Your task to perform on an android device: Open the web browser Image 0: 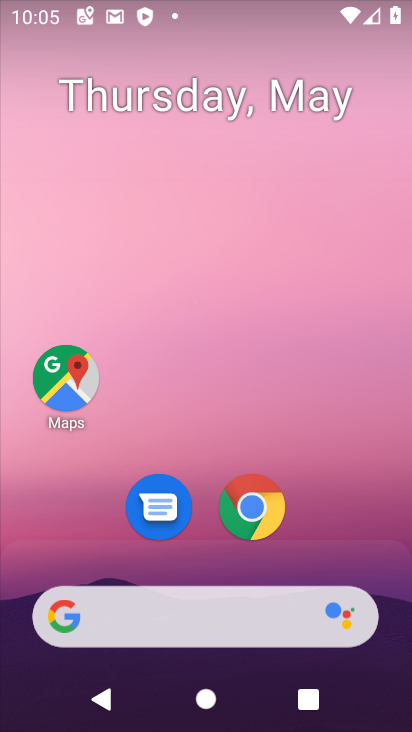
Step 0: click (270, 511)
Your task to perform on an android device: Open the web browser Image 1: 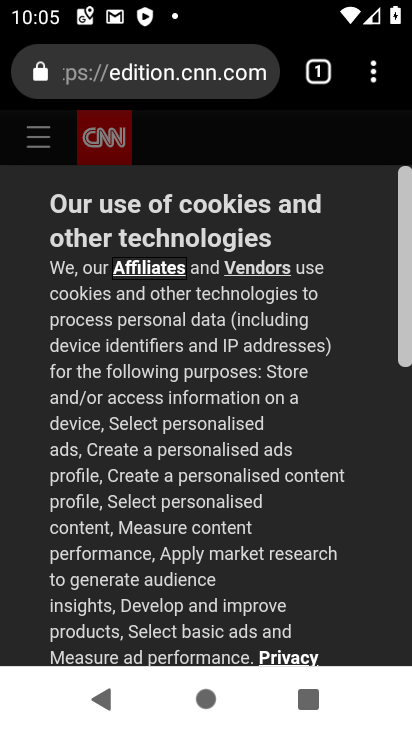
Step 1: drag from (400, 292) to (393, 714)
Your task to perform on an android device: Open the web browser Image 2: 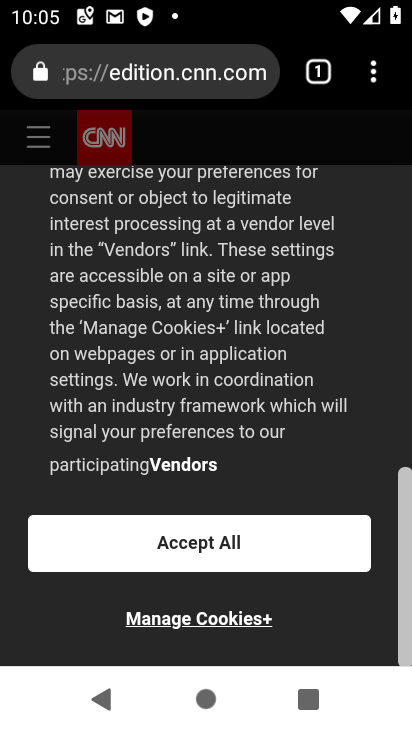
Step 2: click (245, 560)
Your task to perform on an android device: Open the web browser Image 3: 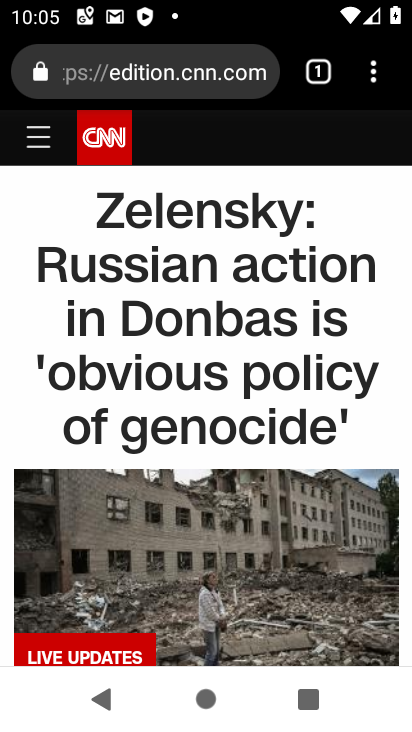
Step 3: task complete